Your task to perform on an android device: Open settings Image 0: 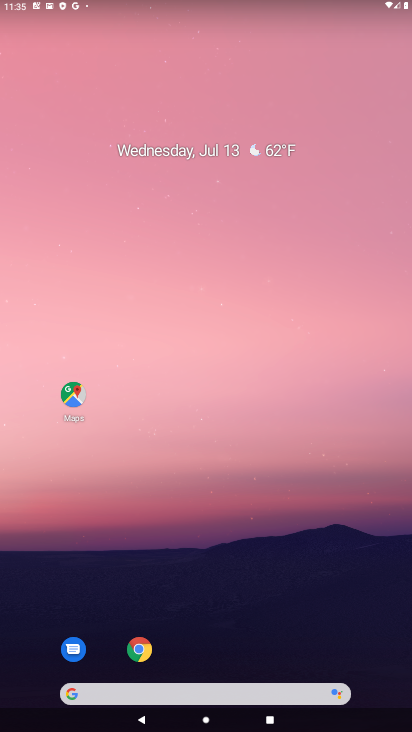
Step 0: drag from (369, 680) to (287, 33)
Your task to perform on an android device: Open settings Image 1: 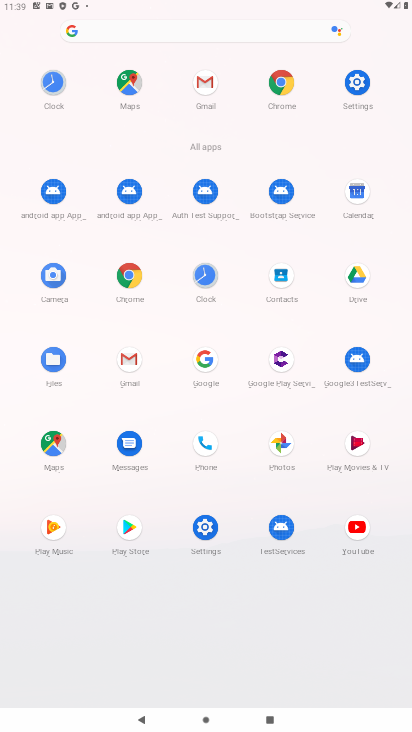
Step 1: click (195, 515)
Your task to perform on an android device: Open settings Image 2: 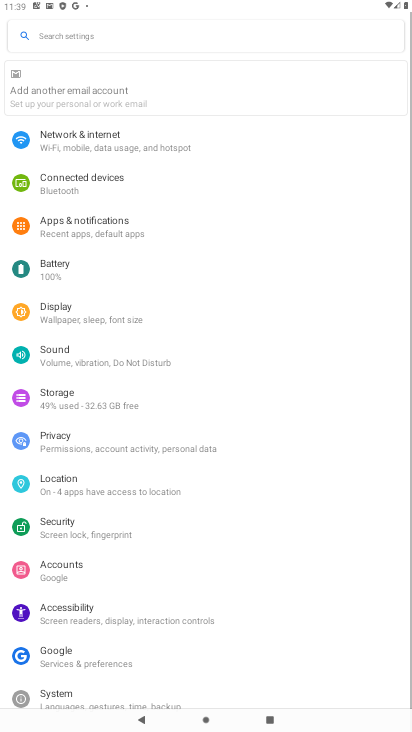
Step 2: task complete